Your task to perform on an android device: turn on sleep mode Image 0: 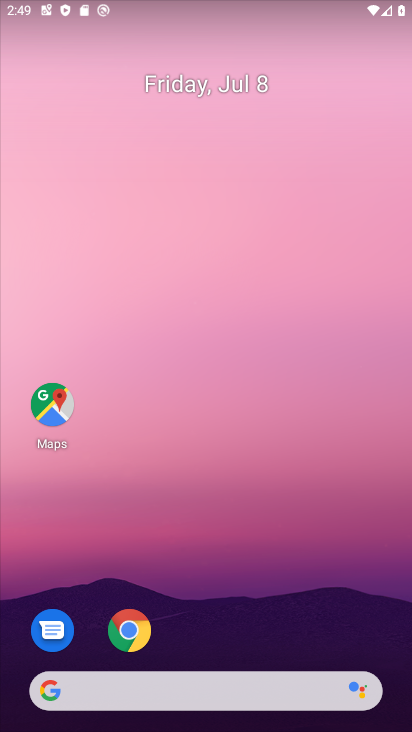
Step 0: drag from (314, 599) to (102, 126)
Your task to perform on an android device: turn on sleep mode Image 1: 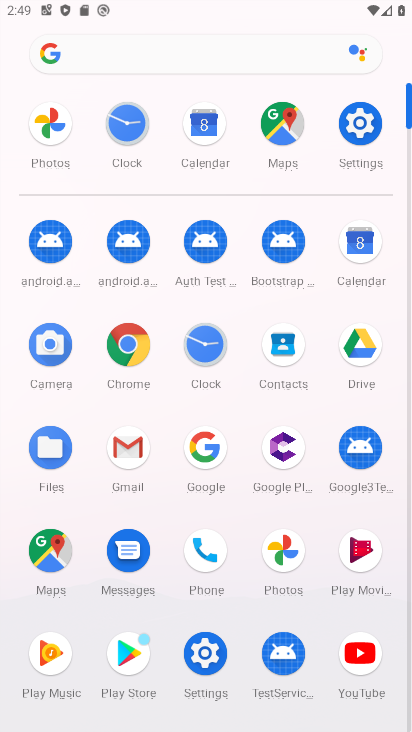
Step 1: click (352, 162)
Your task to perform on an android device: turn on sleep mode Image 2: 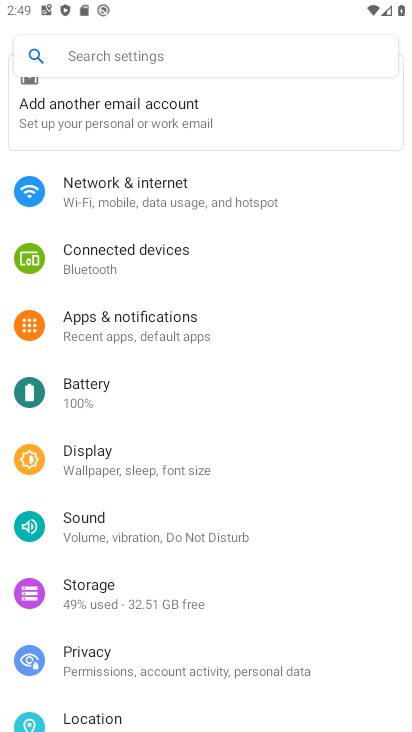
Step 2: click (222, 465)
Your task to perform on an android device: turn on sleep mode Image 3: 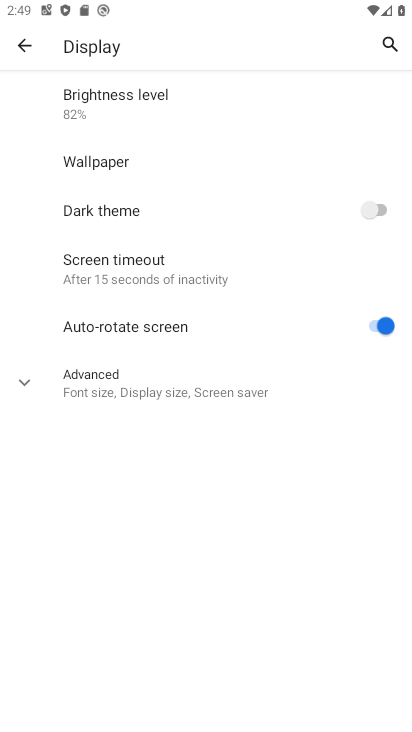
Step 3: click (193, 279)
Your task to perform on an android device: turn on sleep mode Image 4: 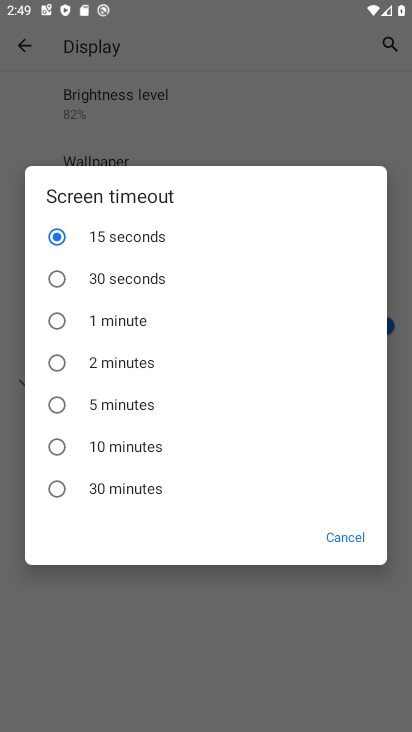
Step 4: click (193, 279)
Your task to perform on an android device: turn on sleep mode Image 5: 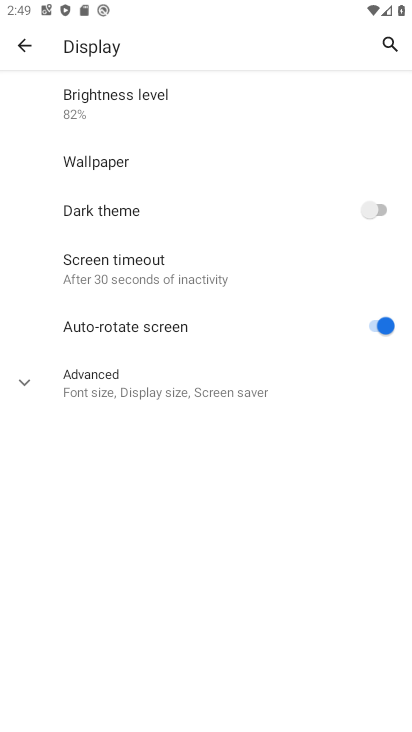
Step 5: task complete